Your task to perform on an android device: open wifi settings Image 0: 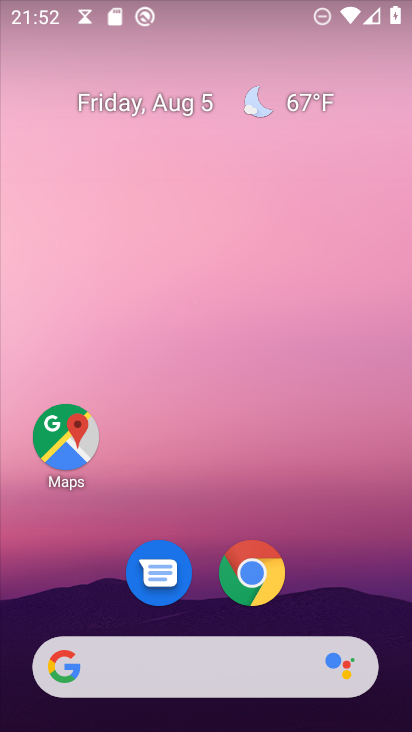
Step 0: drag from (162, 681) to (238, 139)
Your task to perform on an android device: open wifi settings Image 1: 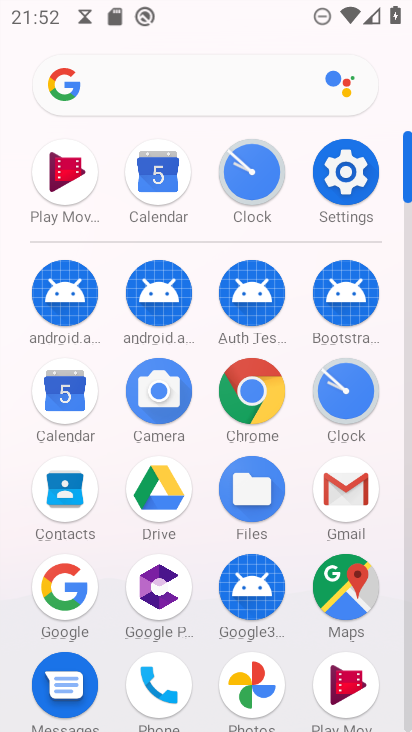
Step 1: click (345, 172)
Your task to perform on an android device: open wifi settings Image 2: 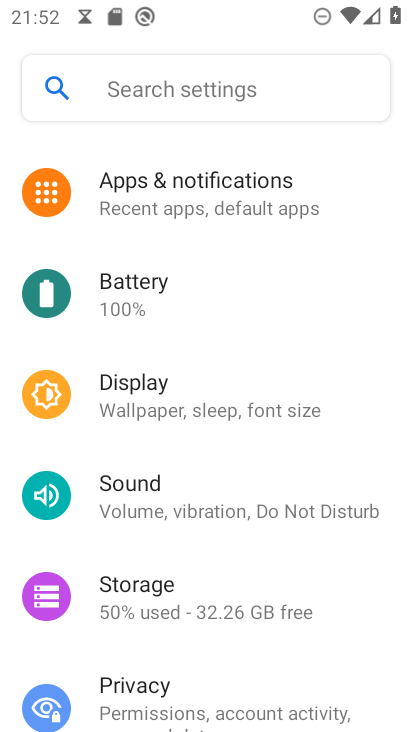
Step 2: drag from (209, 196) to (207, 524)
Your task to perform on an android device: open wifi settings Image 3: 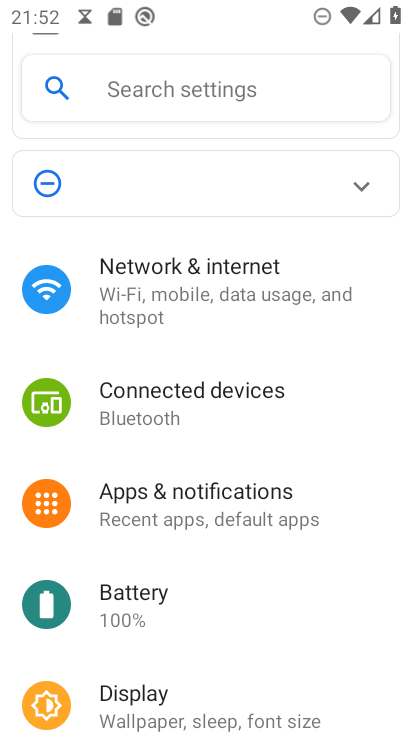
Step 3: click (189, 287)
Your task to perform on an android device: open wifi settings Image 4: 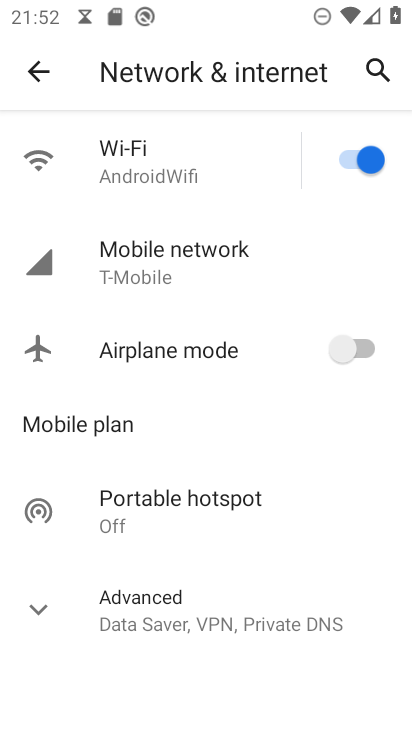
Step 4: click (131, 173)
Your task to perform on an android device: open wifi settings Image 5: 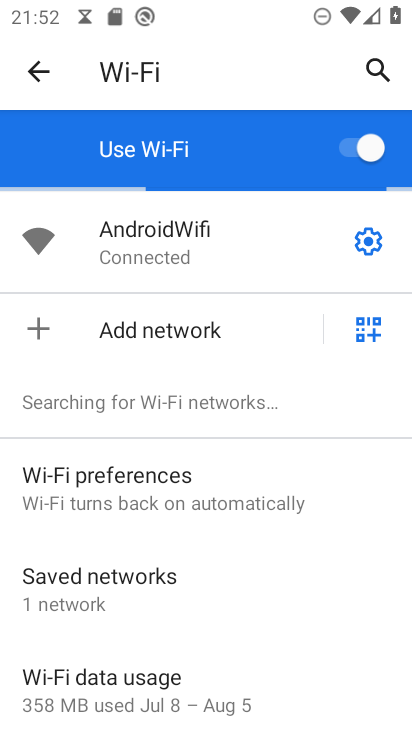
Step 5: click (368, 243)
Your task to perform on an android device: open wifi settings Image 6: 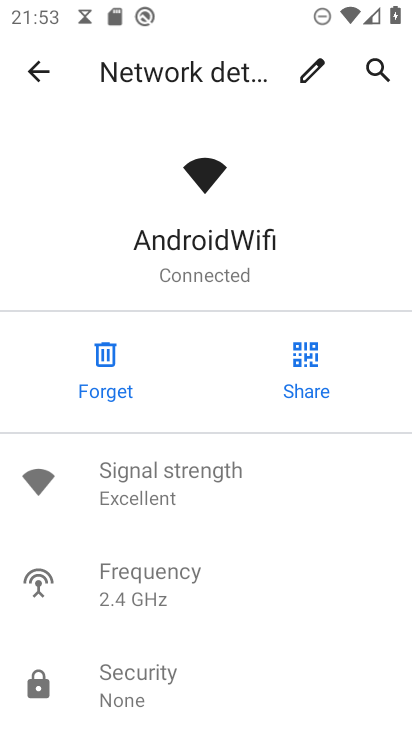
Step 6: task complete